Your task to perform on an android device: Search for flights from NYC to Mexico city Image 0: 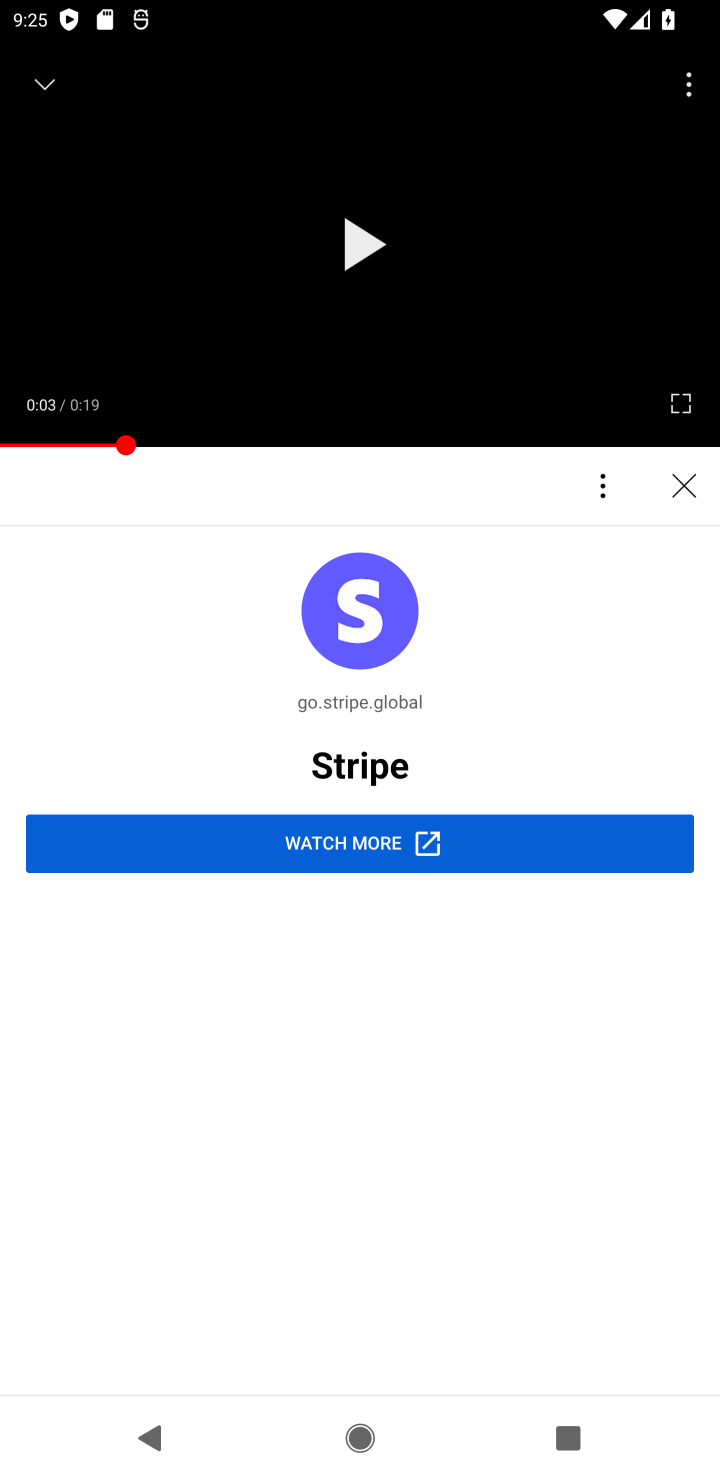
Step 0: press home button
Your task to perform on an android device: Search for flights from NYC to Mexico city Image 1: 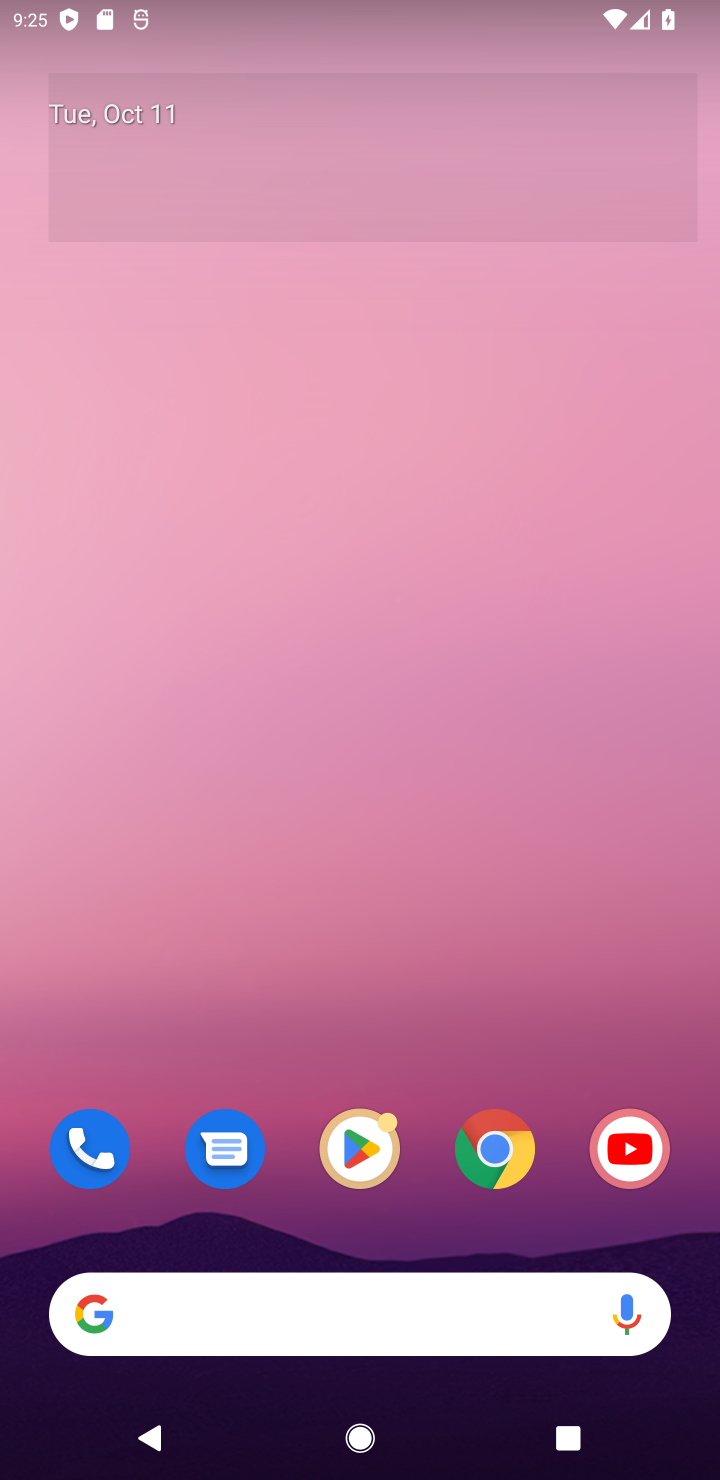
Step 1: drag from (367, 960) to (313, 152)
Your task to perform on an android device: Search for flights from NYC to Mexico city Image 2: 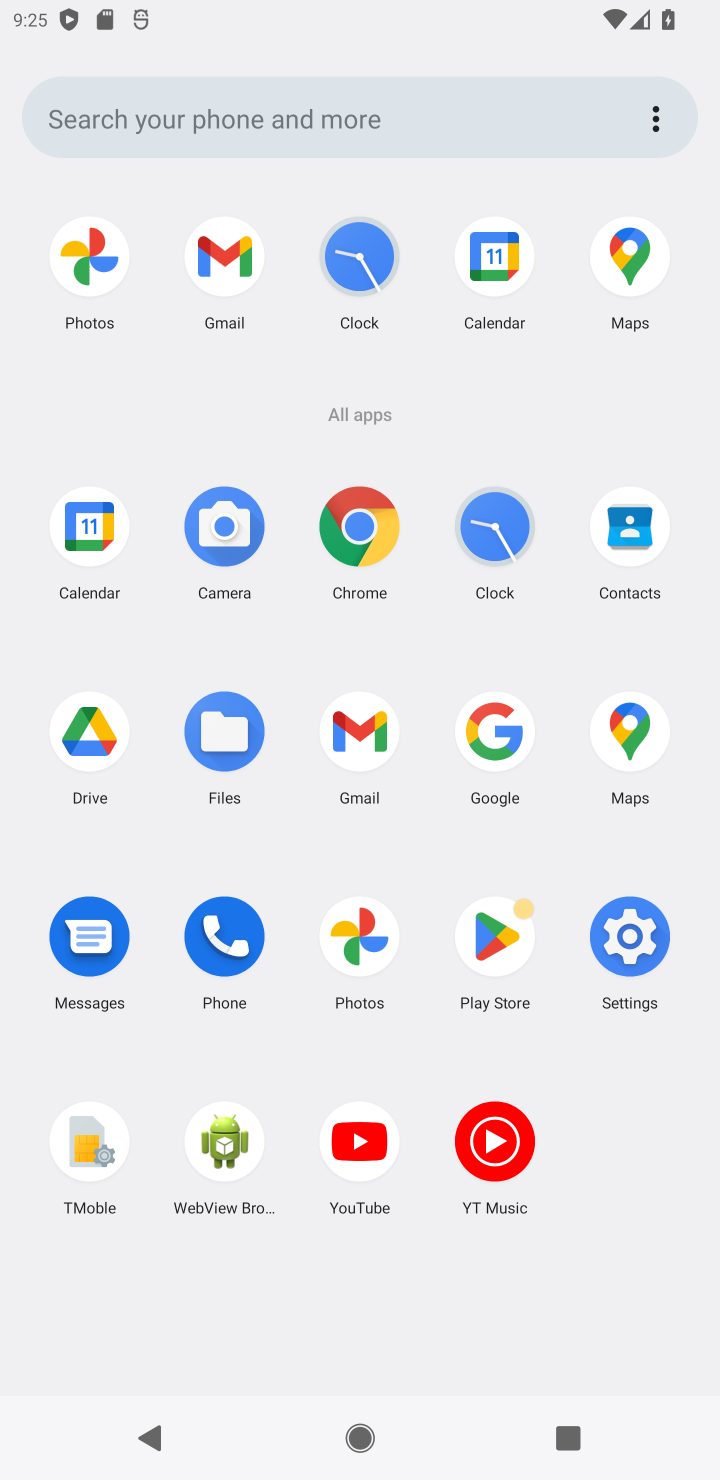
Step 2: click (364, 542)
Your task to perform on an android device: Search for flights from NYC to Mexico city Image 3: 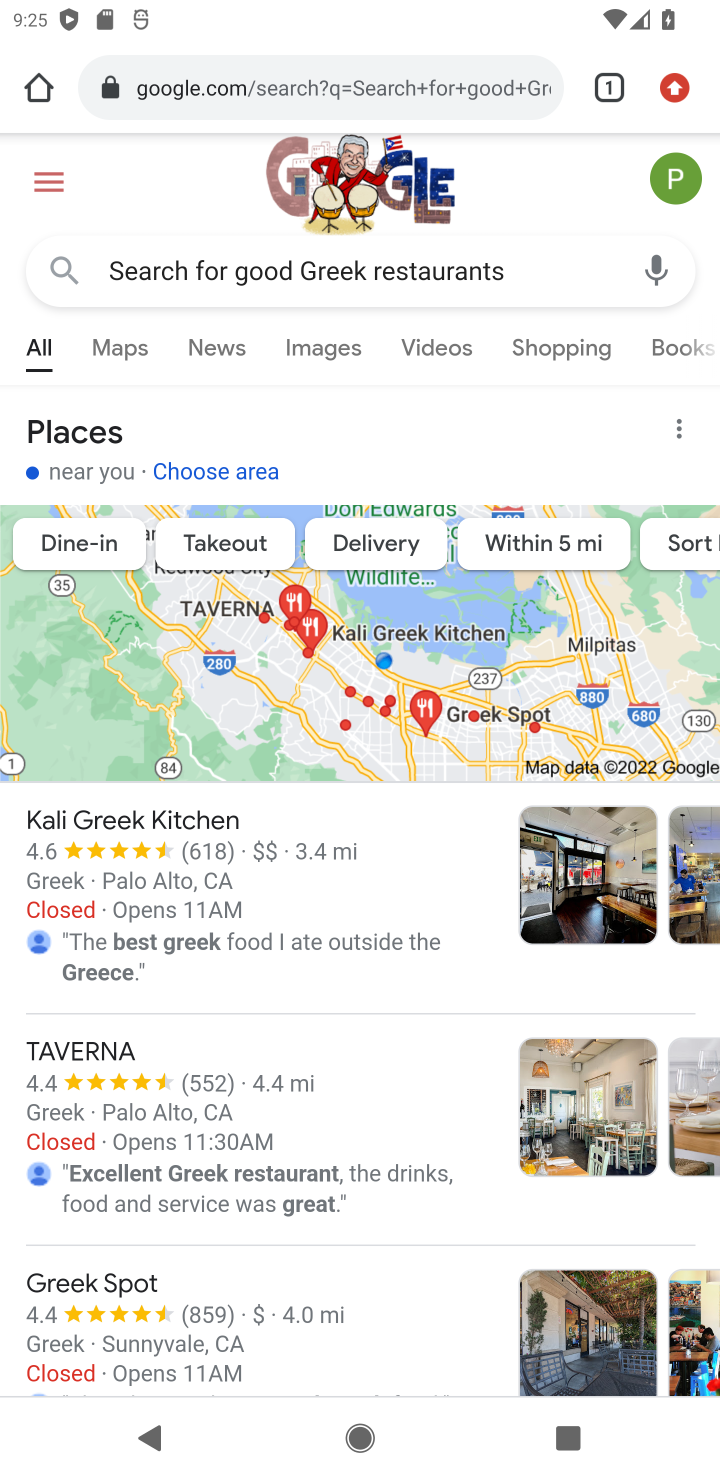
Step 3: click (516, 97)
Your task to perform on an android device: Search for flights from NYC to Mexico city Image 4: 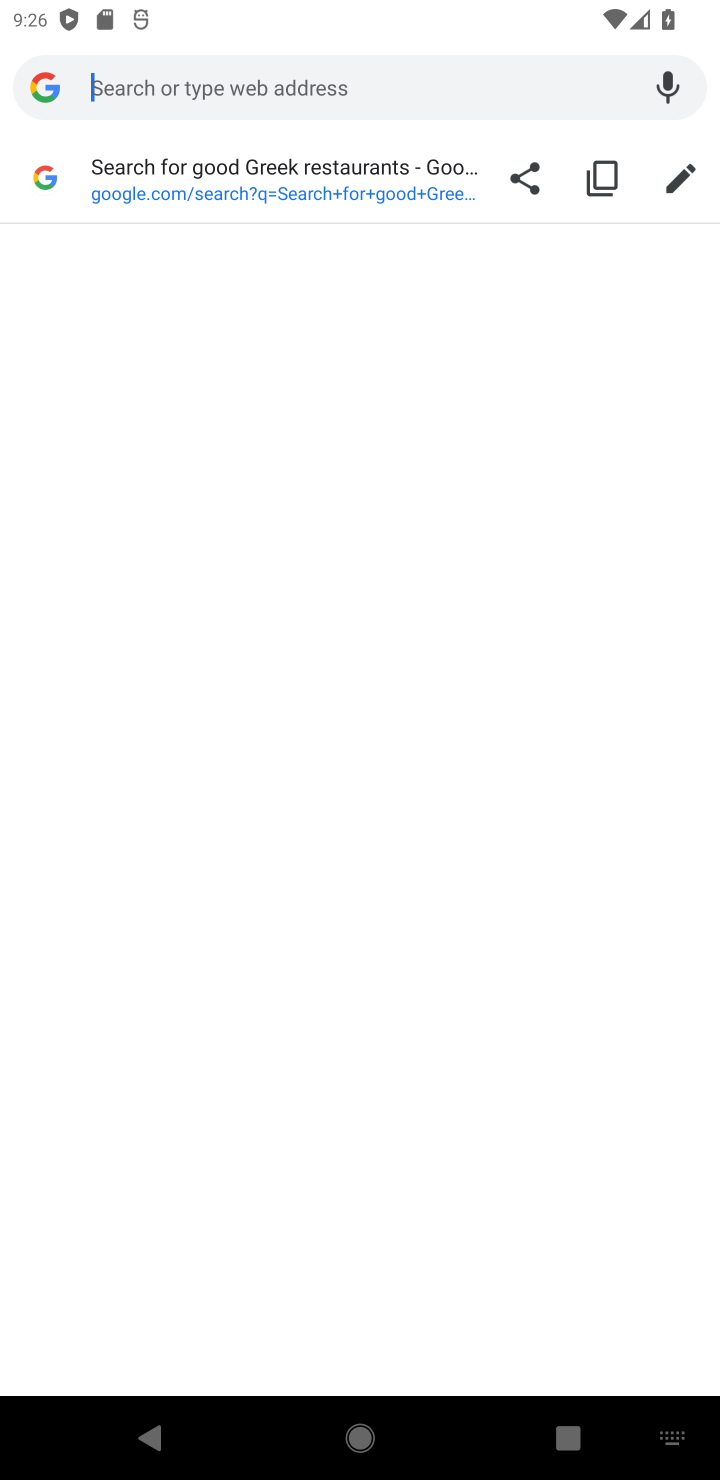
Step 4: type "flights from NYC to Mexico city"
Your task to perform on an android device: Search for flights from NYC to Mexico city Image 5: 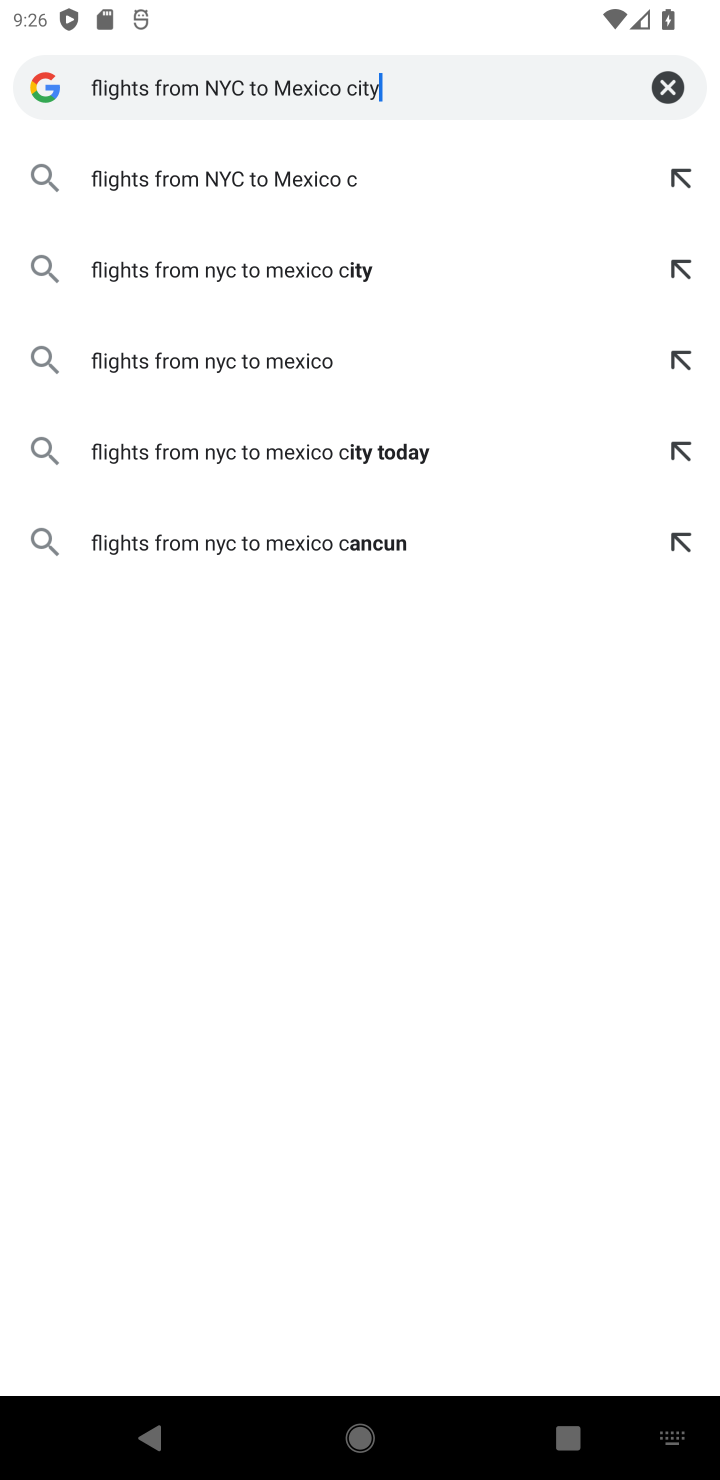
Step 5: press enter
Your task to perform on an android device: Search for flights from NYC to Mexico city Image 6: 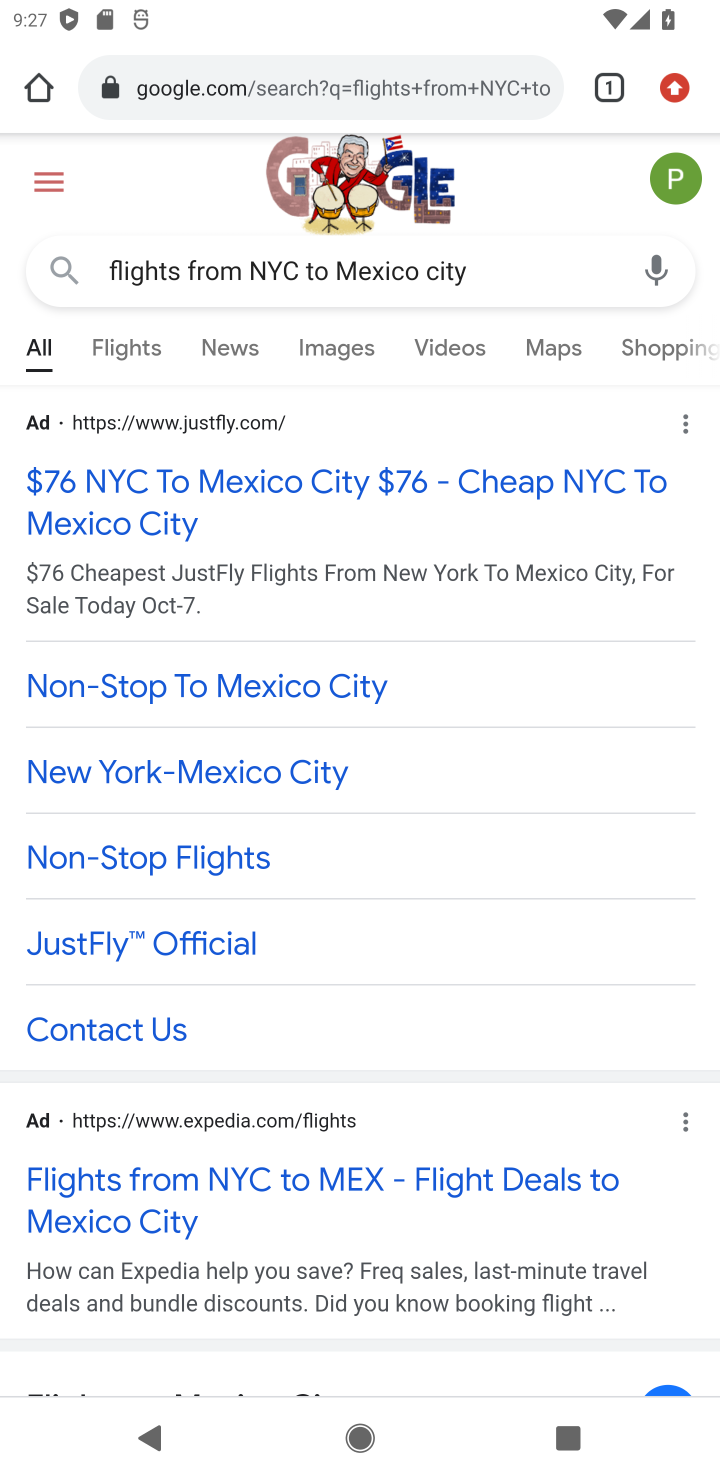
Step 6: task complete